Your task to perform on an android device: Search for Mexican restaurants on Maps Image 0: 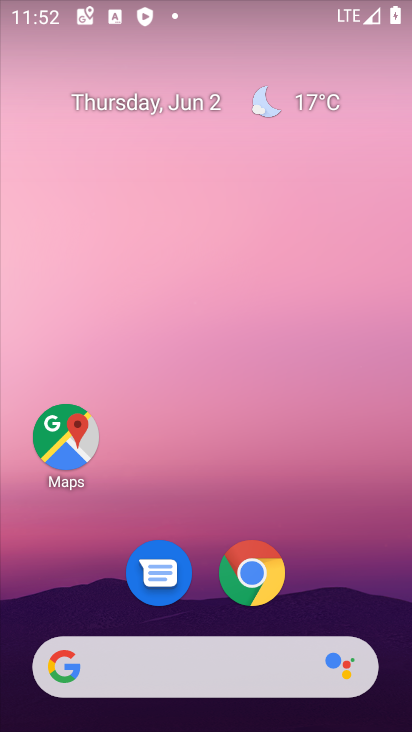
Step 0: drag from (305, 577) to (362, 263)
Your task to perform on an android device: Search for Mexican restaurants on Maps Image 1: 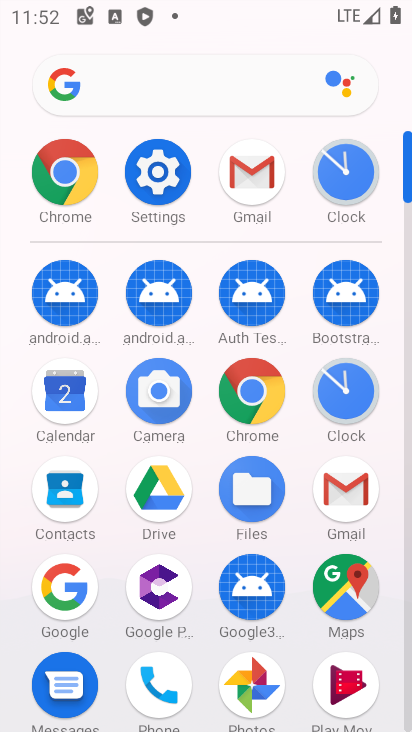
Step 1: click (358, 581)
Your task to perform on an android device: Search for Mexican restaurants on Maps Image 2: 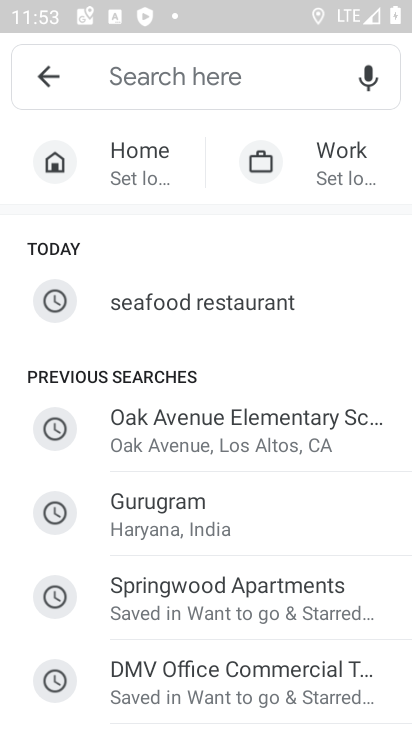
Step 2: click (307, 572)
Your task to perform on an android device: Search for Mexican restaurants on Maps Image 3: 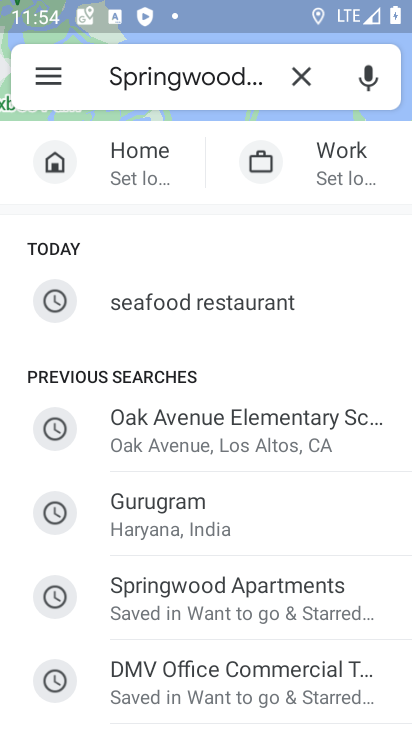
Step 3: click (169, 81)
Your task to perform on an android device: Search for Mexican restaurants on Maps Image 4: 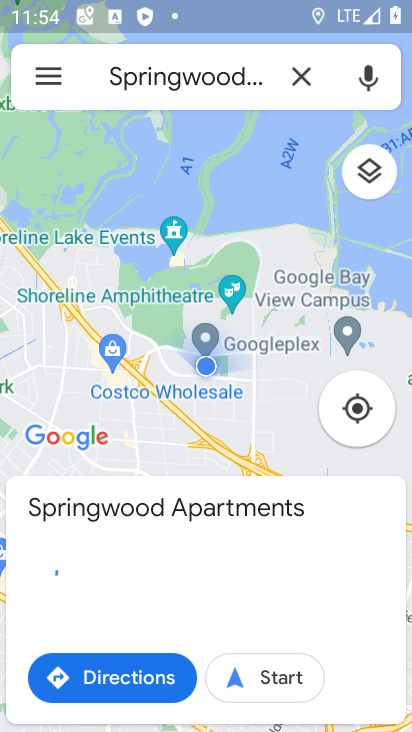
Step 4: click (306, 83)
Your task to perform on an android device: Search for Mexican restaurants on Maps Image 5: 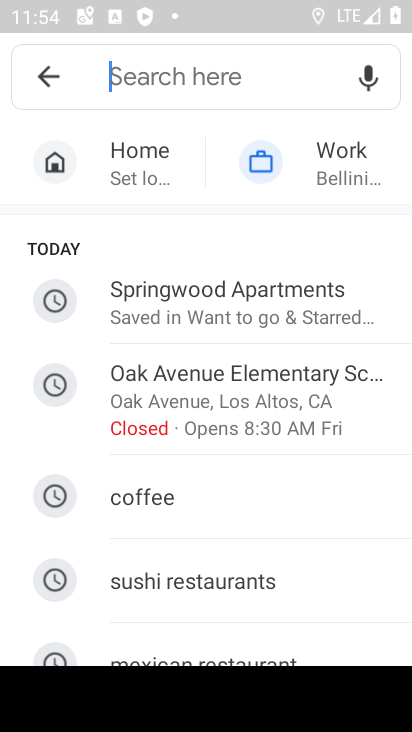
Step 5: drag from (234, 580) to (209, 300)
Your task to perform on an android device: Search for Mexican restaurants on Maps Image 6: 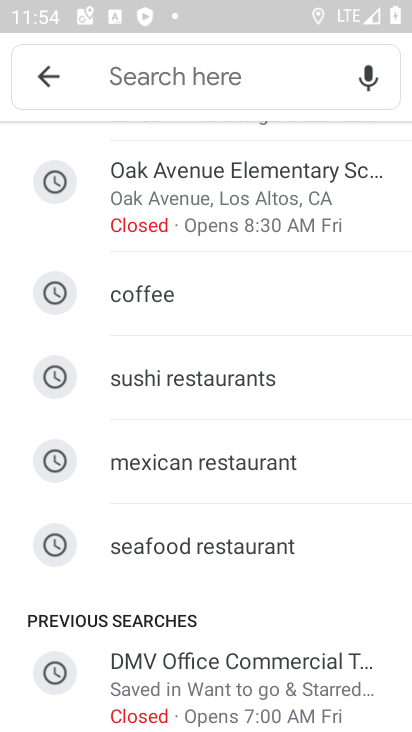
Step 6: click (190, 468)
Your task to perform on an android device: Search for Mexican restaurants on Maps Image 7: 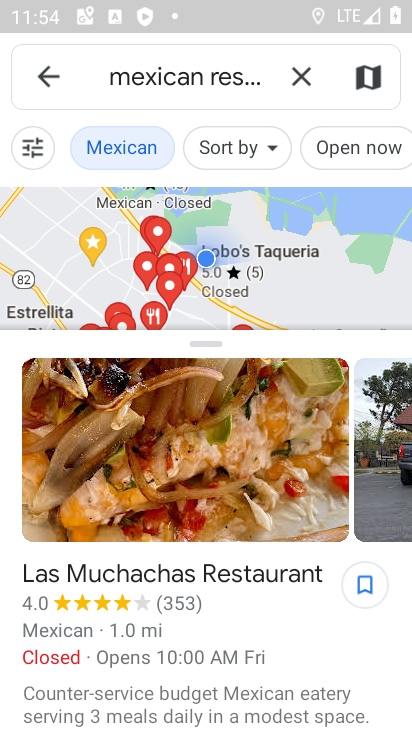
Step 7: task complete